Your task to perform on an android device: turn off javascript in the chrome app Image 0: 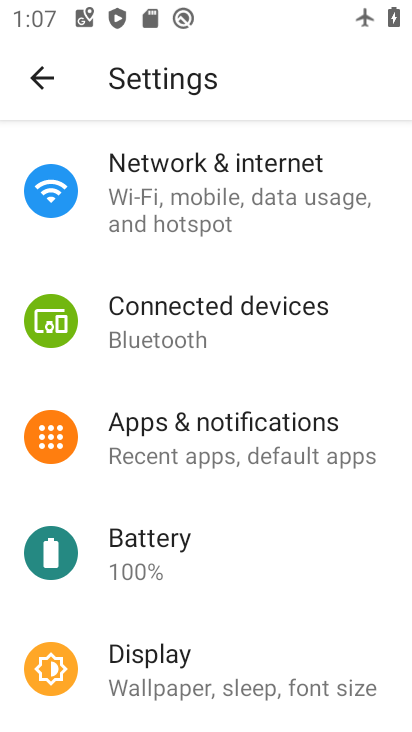
Step 0: press home button
Your task to perform on an android device: turn off javascript in the chrome app Image 1: 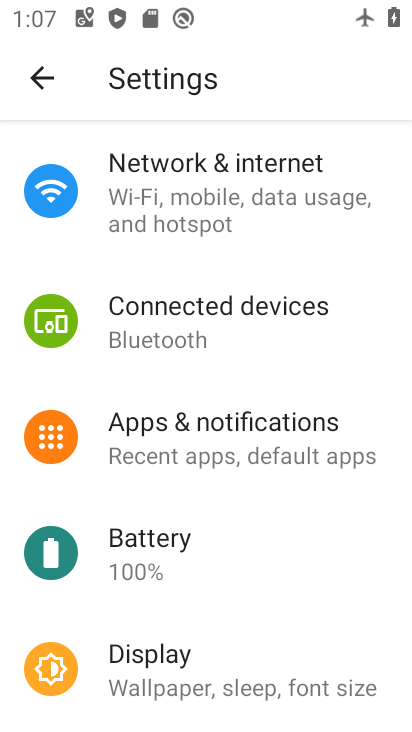
Step 1: press home button
Your task to perform on an android device: turn off javascript in the chrome app Image 2: 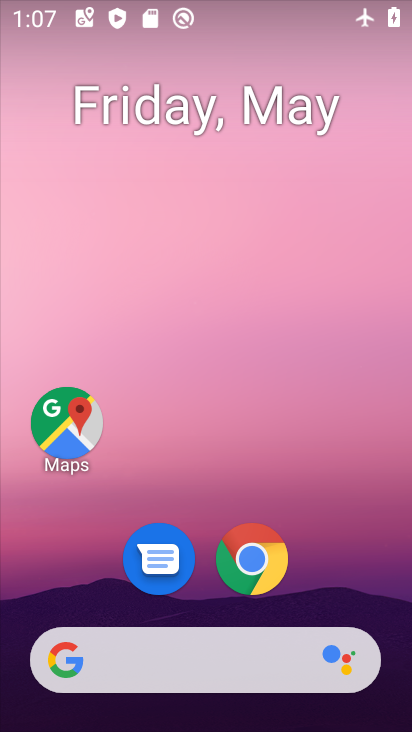
Step 2: drag from (334, 499) to (267, 2)
Your task to perform on an android device: turn off javascript in the chrome app Image 3: 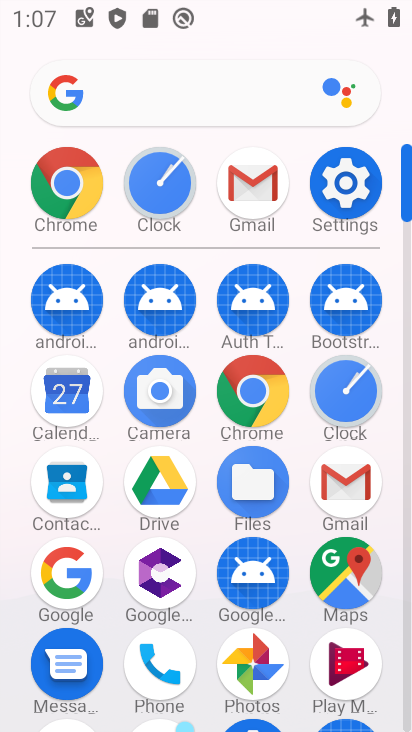
Step 3: click (256, 378)
Your task to perform on an android device: turn off javascript in the chrome app Image 4: 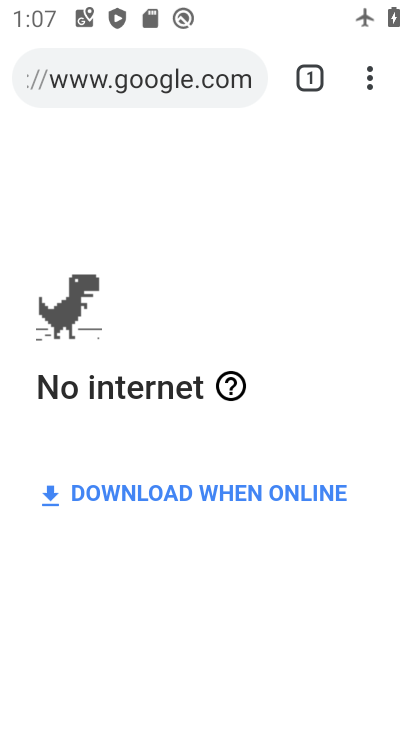
Step 4: drag from (352, 75) to (192, 630)
Your task to perform on an android device: turn off javascript in the chrome app Image 5: 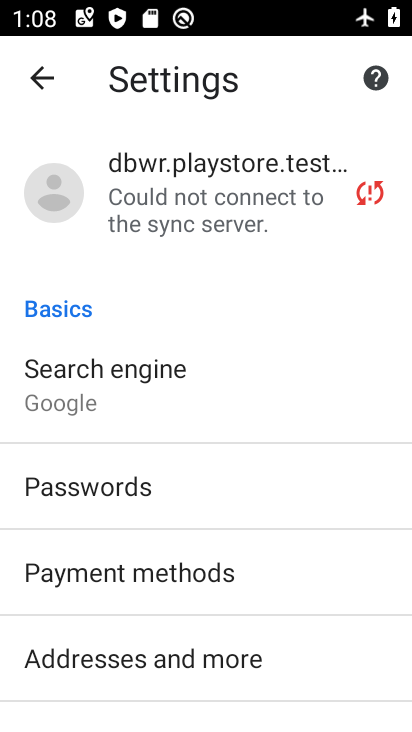
Step 5: drag from (193, 626) to (230, 166)
Your task to perform on an android device: turn off javascript in the chrome app Image 6: 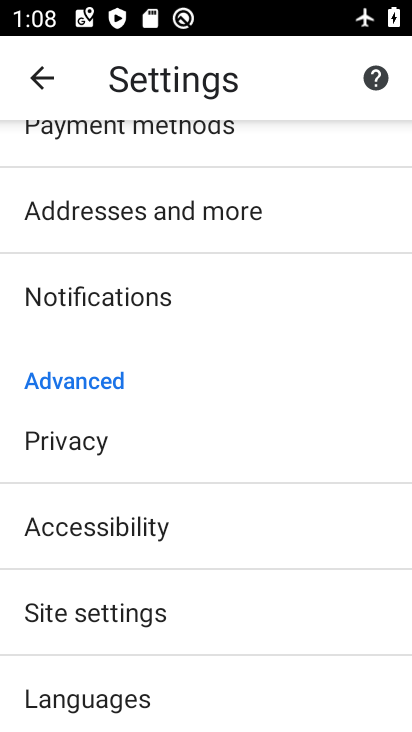
Step 6: drag from (282, 605) to (206, 198)
Your task to perform on an android device: turn off javascript in the chrome app Image 7: 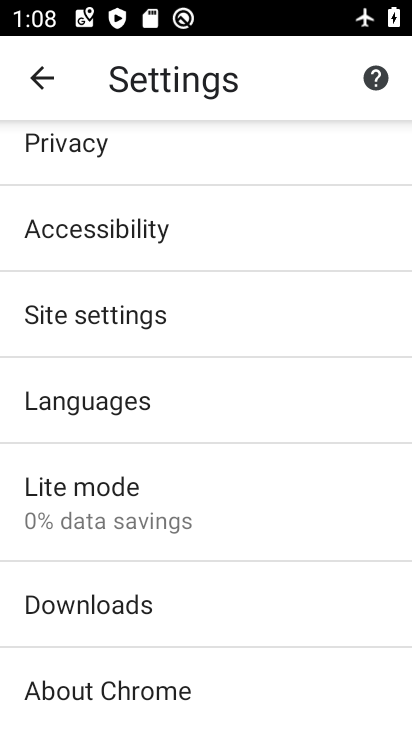
Step 7: click (155, 304)
Your task to perform on an android device: turn off javascript in the chrome app Image 8: 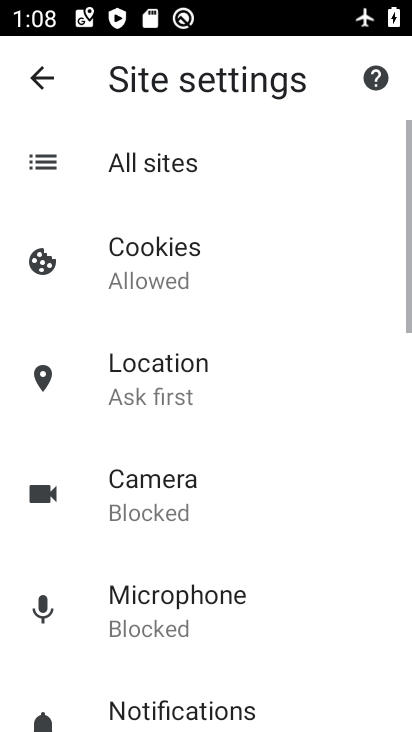
Step 8: drag from (205, 671) to (237, 244)
Your task to perform on an android device: turn off javascript in the chrome app Image 9: 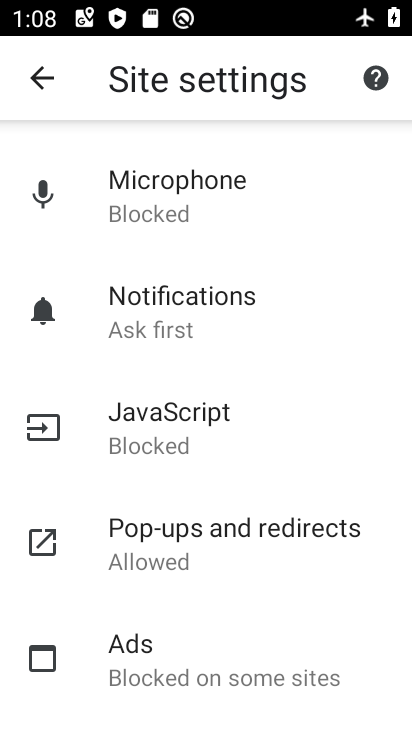
Step 9: click (209, 440)
Your task to perform on an android device: turn off javascript in the chrome app Image 10: 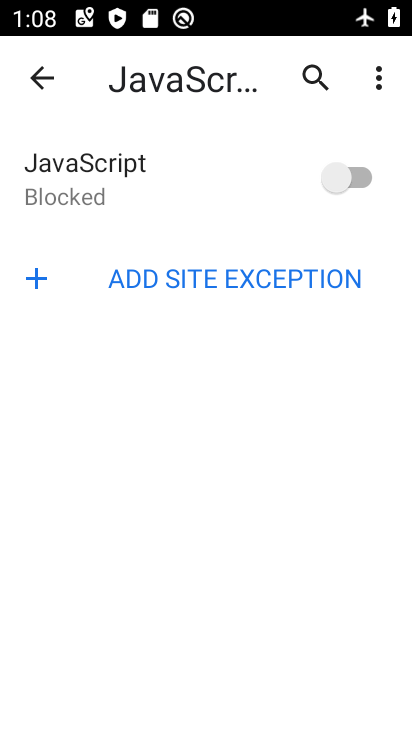
Step 10: task complete